Your task to perform on an android device: install app "Adobe Acrobat Reader: Edit PDF" Image 0: 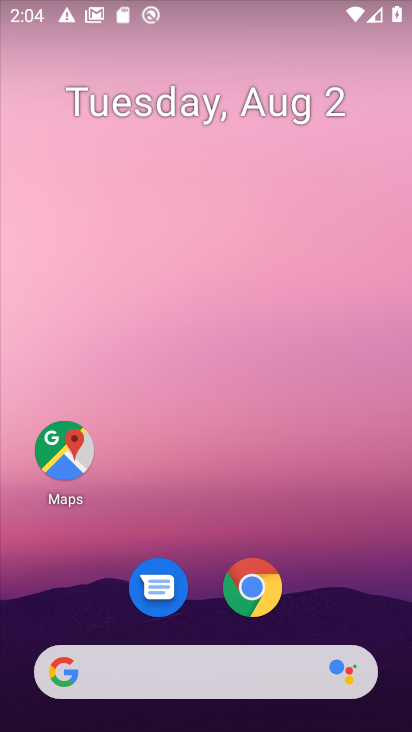
Step 0: drag from (213, 545) to (212, 191)
Your task to perform on an android device: install app "Adobe Acrobat Reader: Edit PDF" Image 1: 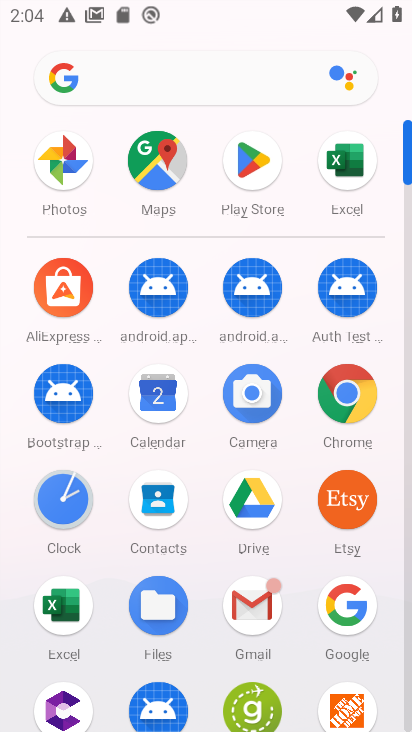
Step 1: click (254, 152)
Your task to perform on an android device: install app "Adobe Acrobat Reader: Edit PDF" Image 2: 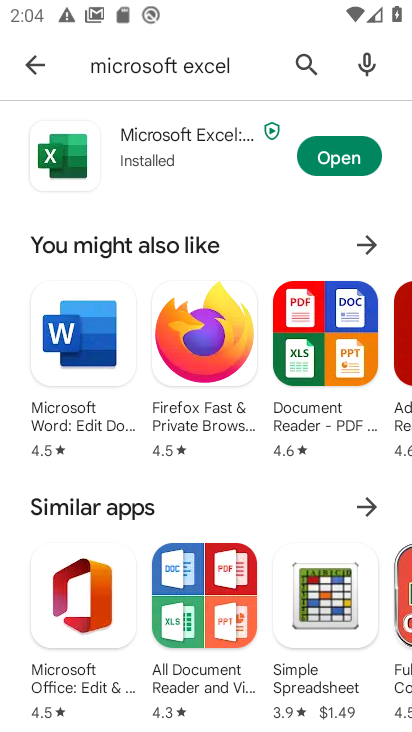
Step 2: click (322, 64)
Your task to perform on an android device: install app "Adobe Acrobat Reader: Edit PDF" Image 3: 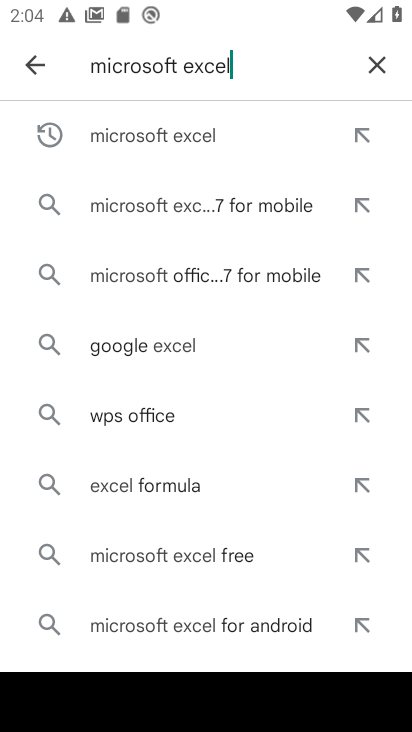
Step 3: drag from (322, 64) to (375, 64)
Your task to perform on an android device: install app "Adobe Acrobat Reader: Edit PDF" Image 4: 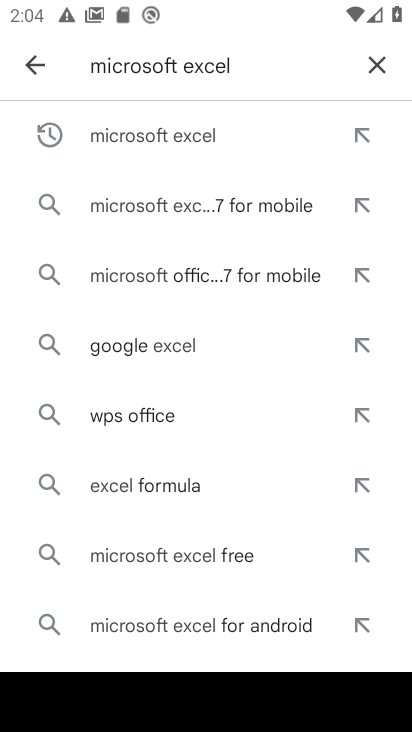
Step 4: type "Adobe Acrobat Reader: Edit PDF"
Your task to perform on an android device: install app "Adobe Acrobat Reader: Edit PDF" Image 5: 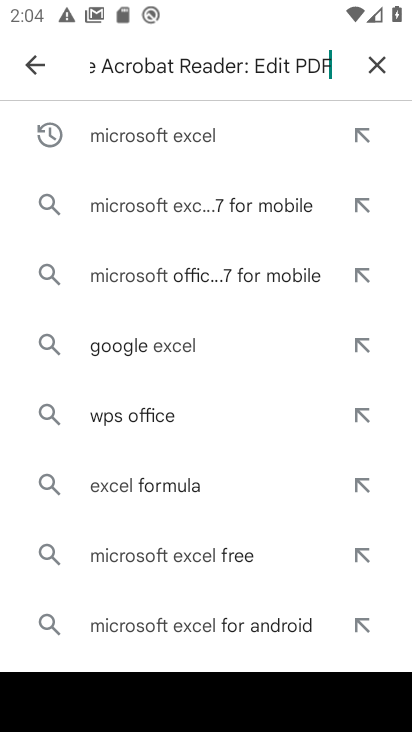
Step 5: type ""
Your task to perform on an android device: install app "Adobe Acrobat Reader: Edit PDF" Image 6: 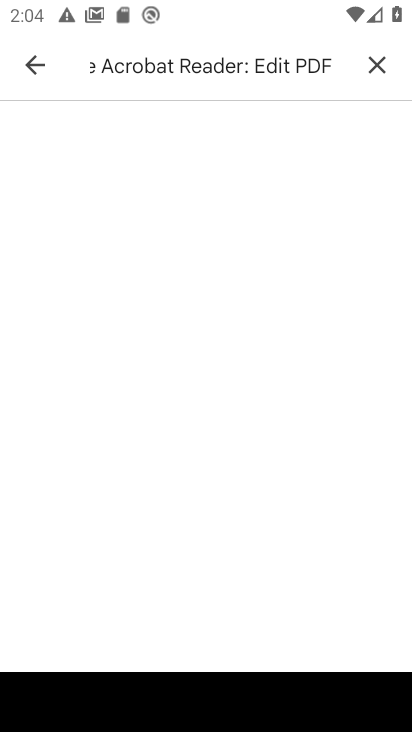
Step 6: click (369, 66)
Your task to perform on an android device: install app "Adobe Acrobat Reader: Edit PDF" Image 7: 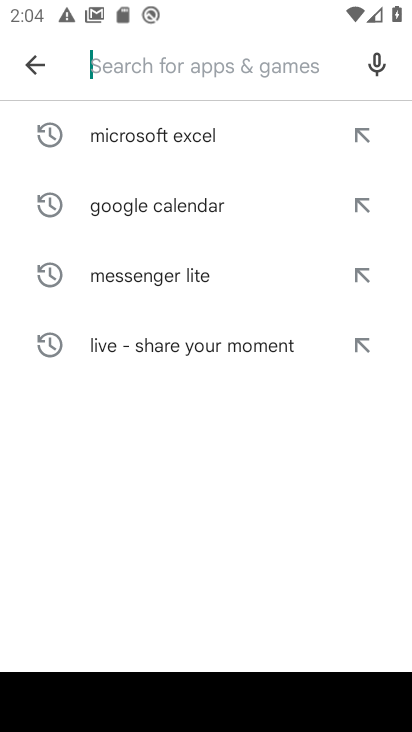
Step 7: type "Adobe Acrobat Reader: Edit PDF"
Your task to perform on an android device: install app "Adobe Acrobat Reader: Edit PDF" Image 8: 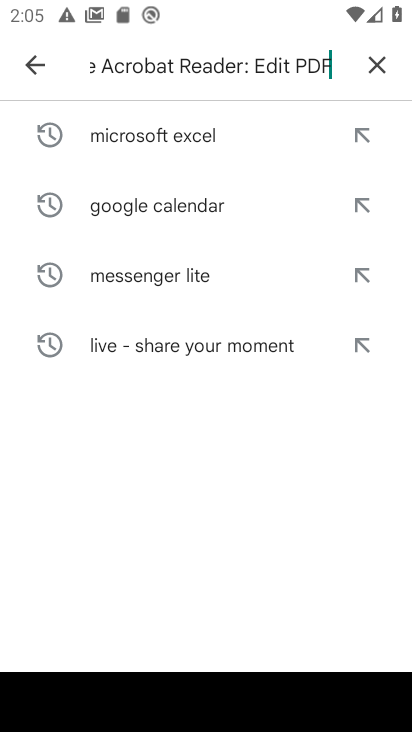
Step 8: type ""
Your task to perform on an android device: install app "Adobe Acrobat Reader: Edit PDF" Image 9: 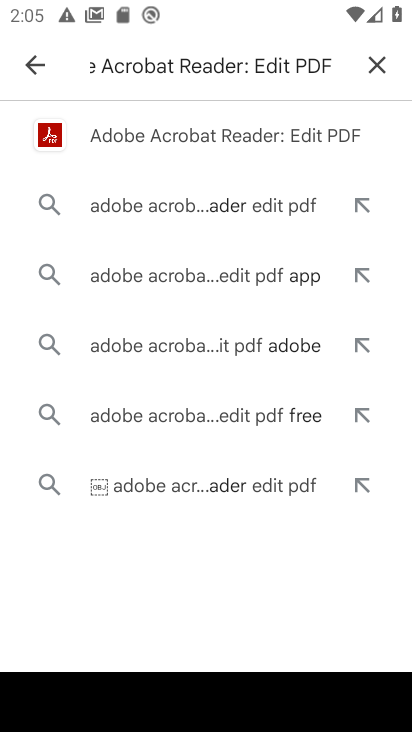
Step 9: click (218, 136)
Your task to perform on an android device: install app "Adobe Acrobat Reader: Edit PDF" Image 10: 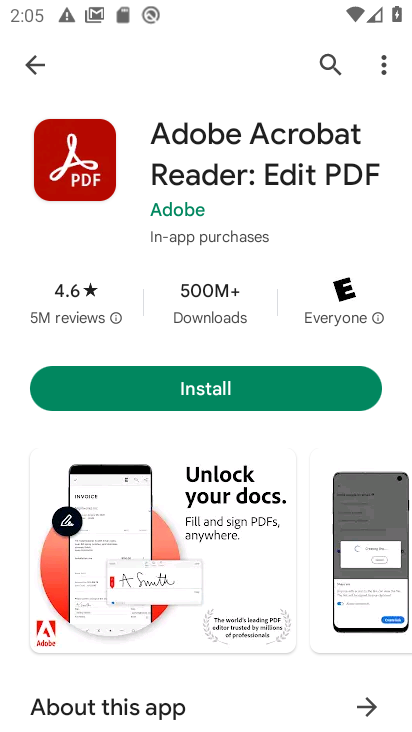
Step 10: click (248, 397)
Your task to perform on an android device: install app "Adobe Acrobat Reader: Edit PDF" Image 11: 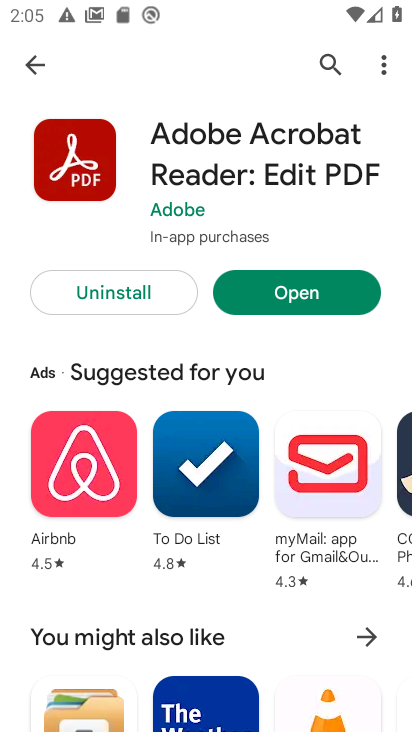
Step 11: task complete